Your task to perform on an android device: Go to Google maps Image 0: 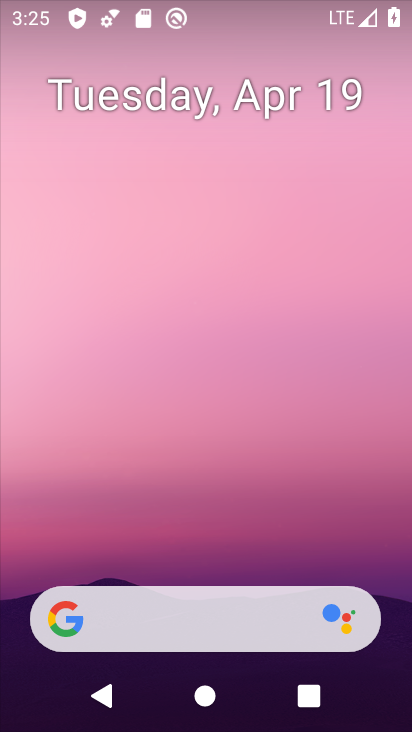
Step 0: drag from (210, 532) to (249, 55)
Your task to perform on an android device: Go to Google maps Image 1: 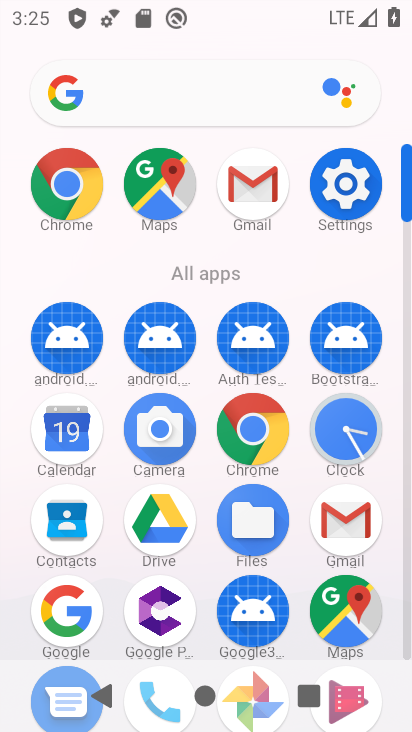
Step 1: click (166, 189)
Your task to perform on an android device: Go to Google maps Image 2: 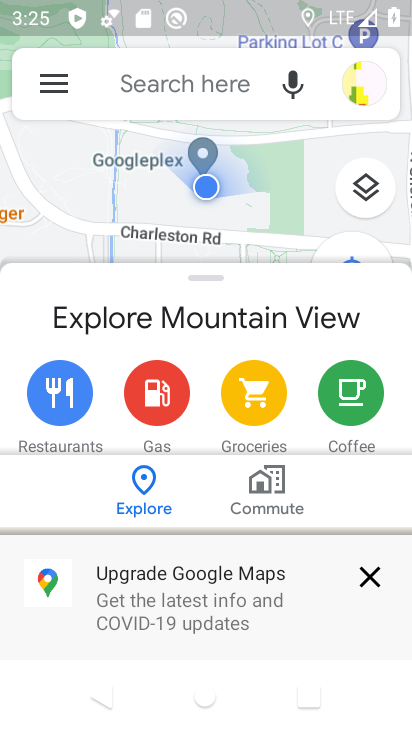
Step 2: task complete